Your task to perform on an android device: Show the shopping cart on amazon. Image 0: 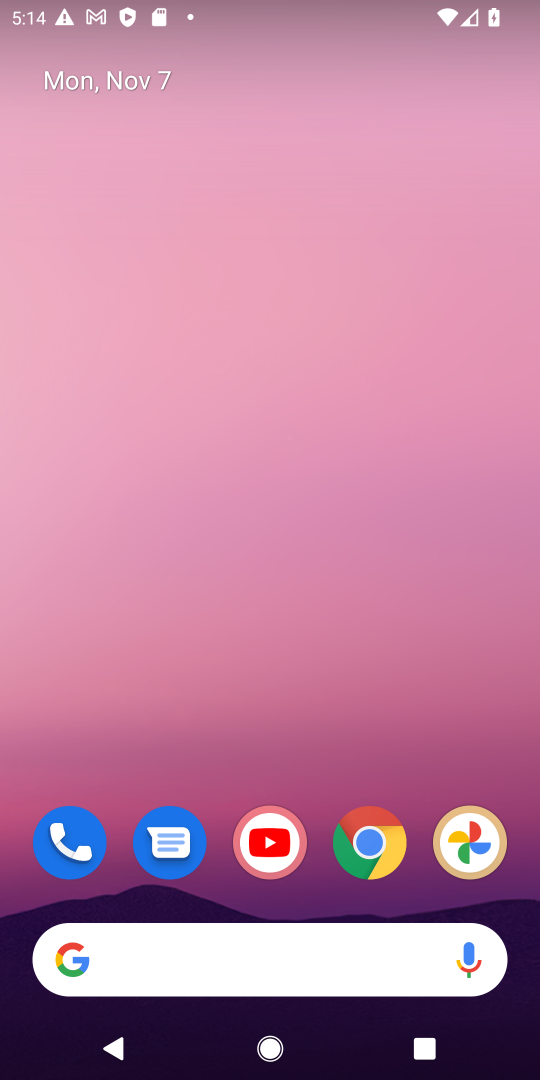
Step 0: drag from (187, 619) to (294, 42)
Your task to perform on an android device: Show the shopping cart on amazon. Image 1: 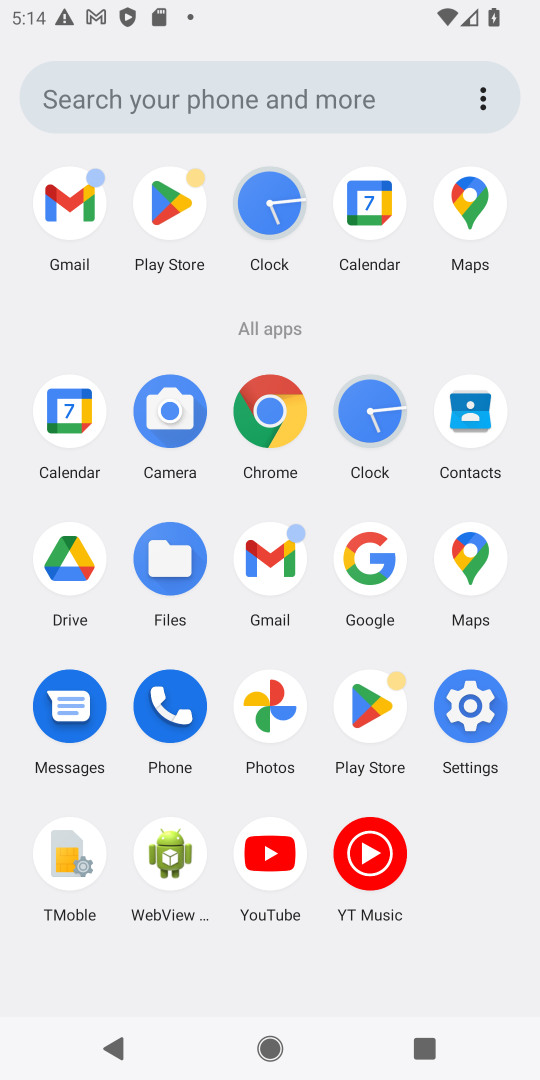
Step 1: click (272, 425)
Your task to perform on an android device: Show the shopping cart on amazon. Image 2: 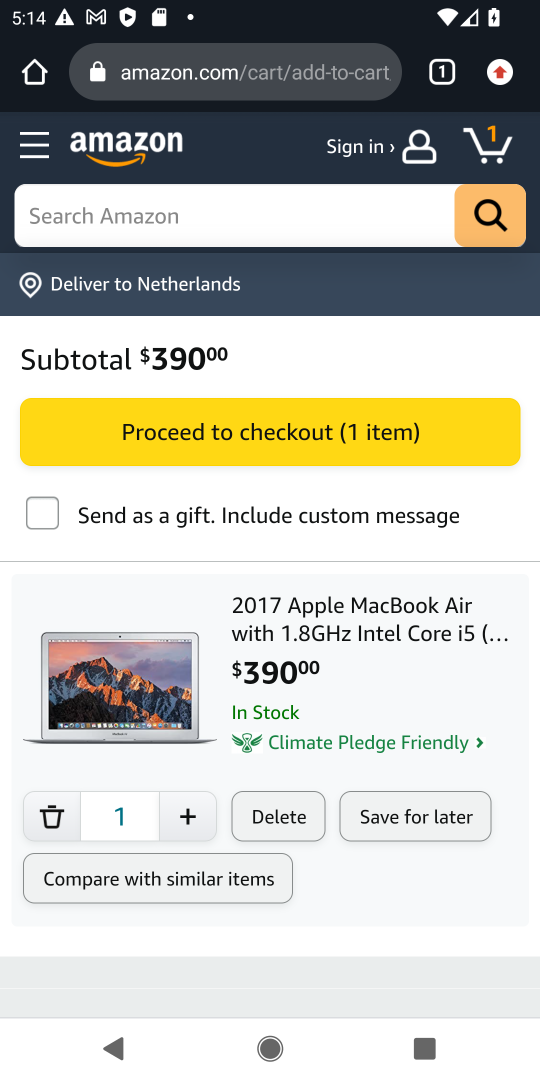
Step 2: task complete